Your task to perform on an android device: toggle wifi Image 0: 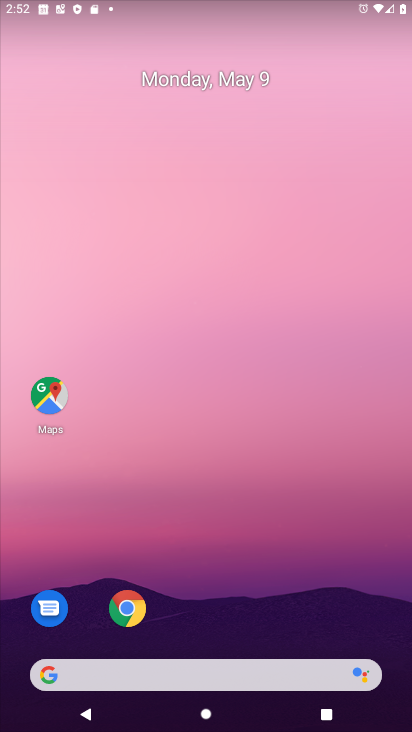
Step 0: drag from (244, 12) to (79, 716)
Your task to perform on an android device: toggle wifi Image 1: 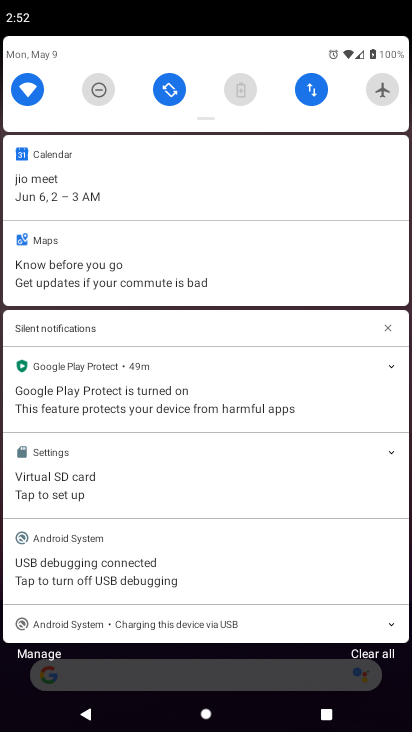
Step 1: click (30, 98)
Your task to perform on an android device: toggle wifi Image 2: 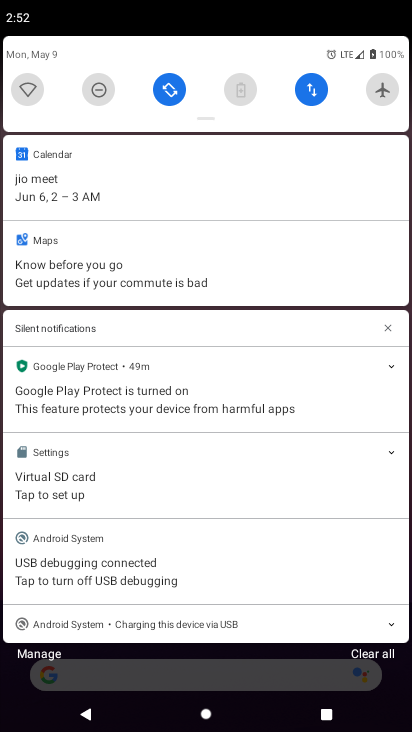
Step 2: click (30, 98)
Your task to perform on an android device: toggle wifi Image 3: 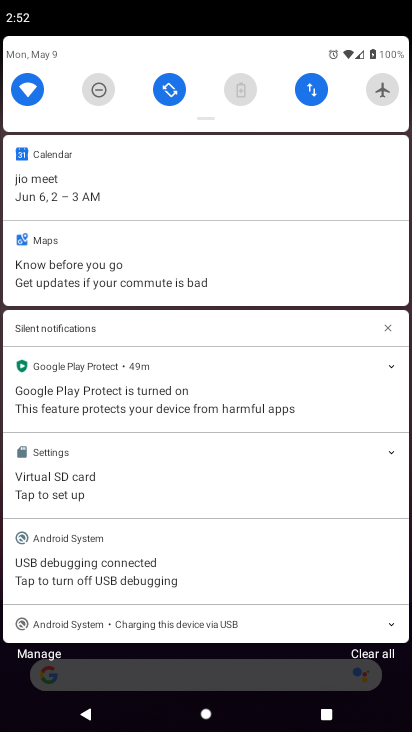
Step 3: task complete